Your task to perform on an android device: What's the weather going to be this weekend? Image 0: 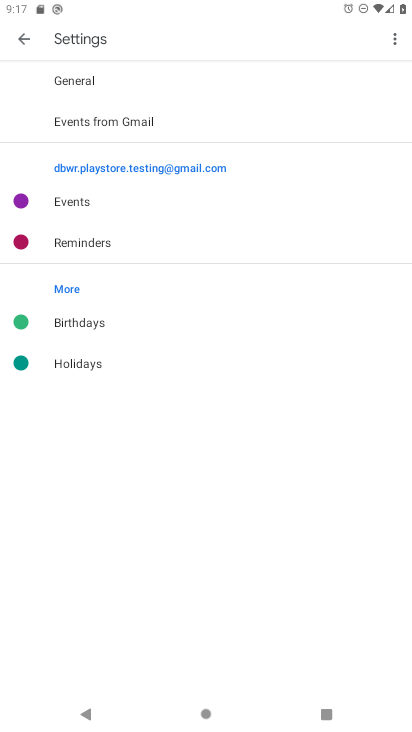
Step 0: press home button
Your task to perform on an android device: What's the weather going to be this weekend? Image 1: 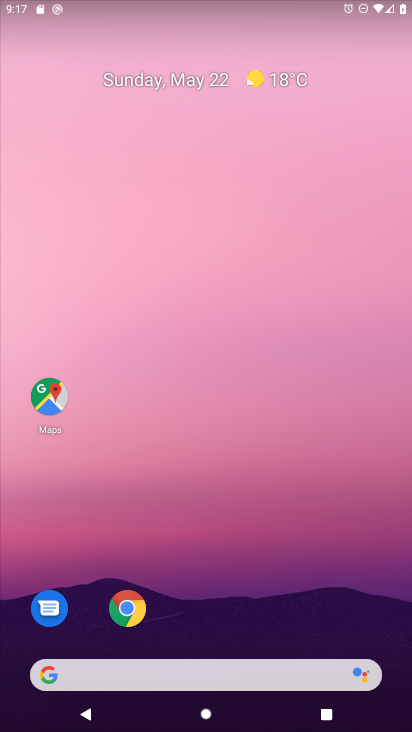
Step 1: click (255, 79)
Your task to perform on an android device: What's the weather going to be this weekend? Image 2: 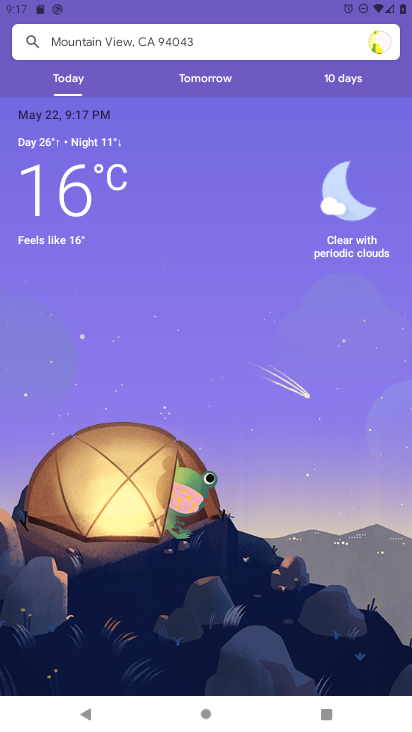
Step 2: click (335, 74)
Your task to perform on an android device: What's the weather going to be this weekend? Image 3: 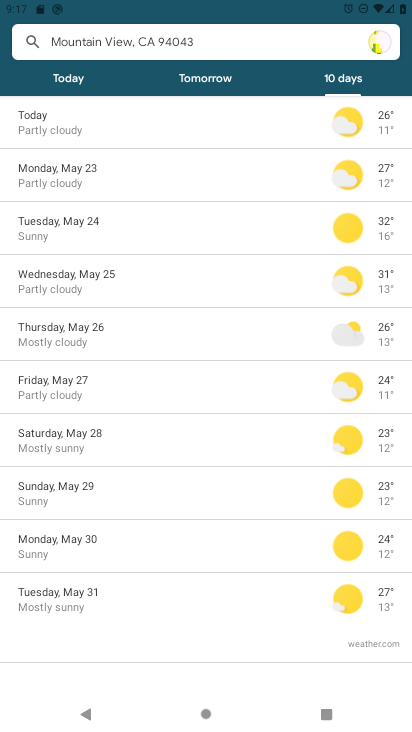
Step 3: click (52, 435)
Your task to perform on an android device: What's the weather going to be this weekend? Image 4: 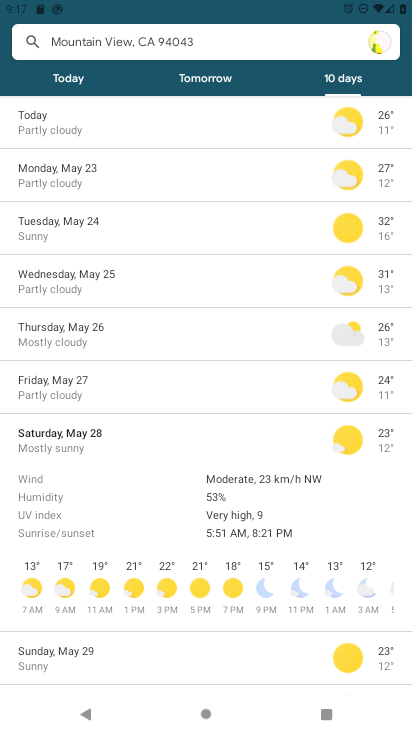
Step 4: task complete